Your task to perform on an android device: open device folders in google photos Image 0: 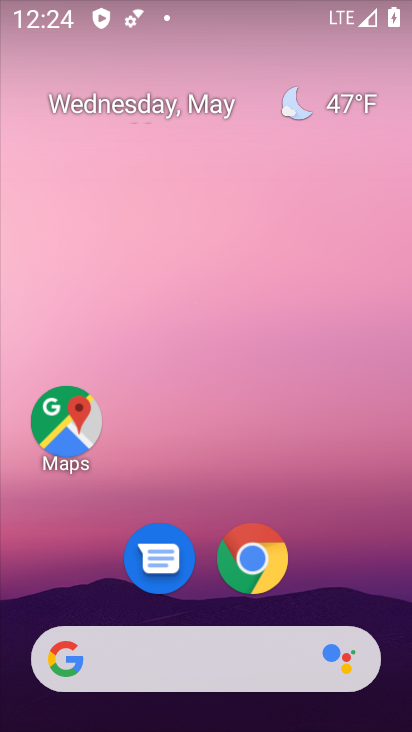
Step 0: drag from (199, 724) to (205, 132)
Your task to perform on an android device: open device folders in google photos Image 1: 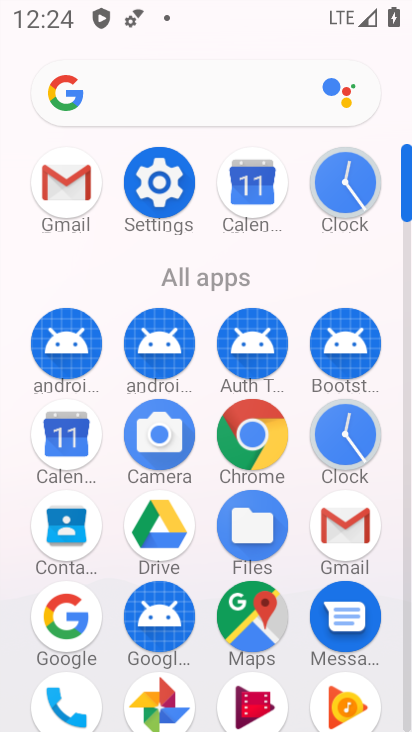
Step 1: click (152, 700)
Your task to perform on an android device: open device folders in google photos Image 2: 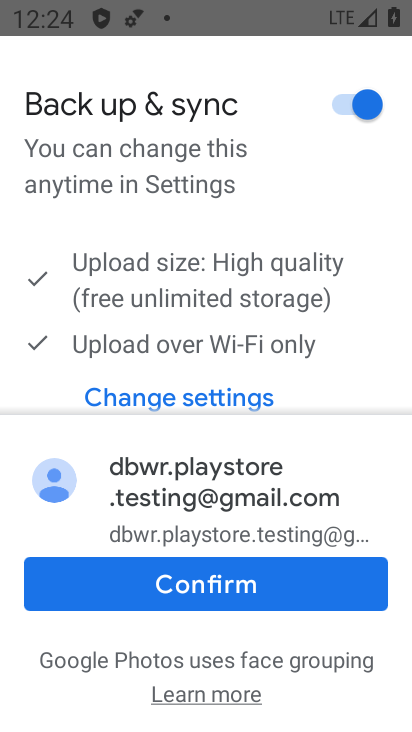
Step 2: click (192, 591)
Your task to perform on an android device: open device folders in google photos Image 3: 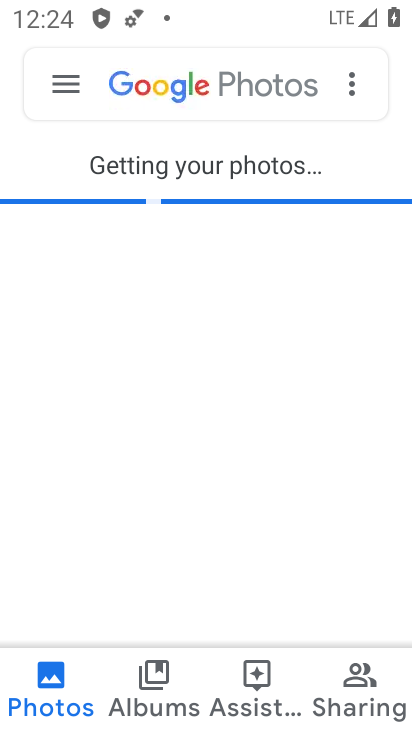
Step 3: click (47, 73)
Your task to perform on an android device: open device folders in google photos Image 4: 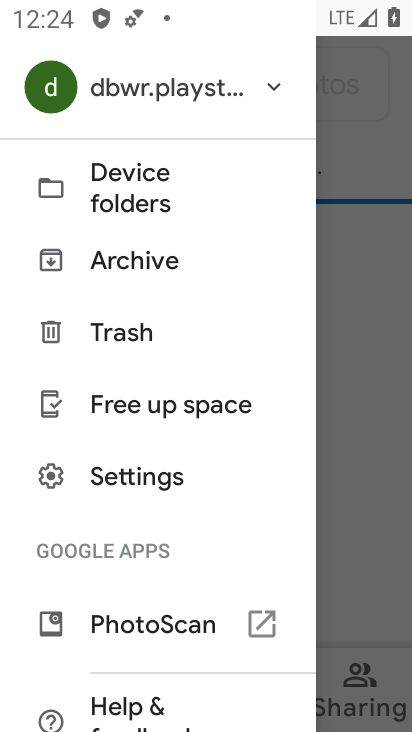
Step 4: click (144, 188)
Your task to perform on an android device: open device folders in google photos Image 5: 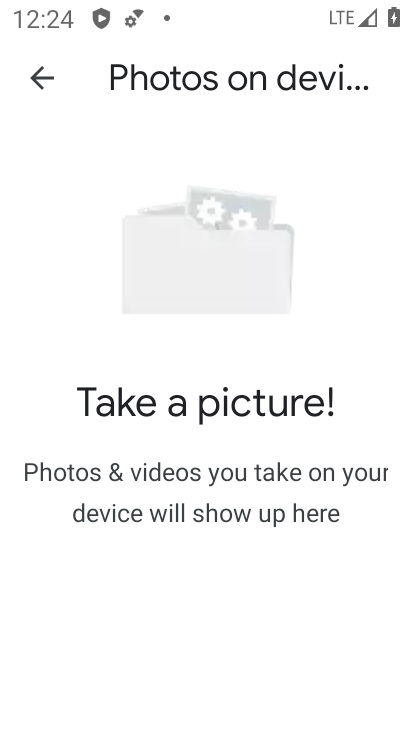
Step 5: task complete